Your task to perform on an android device: Go to Yahoo.com Image 0: 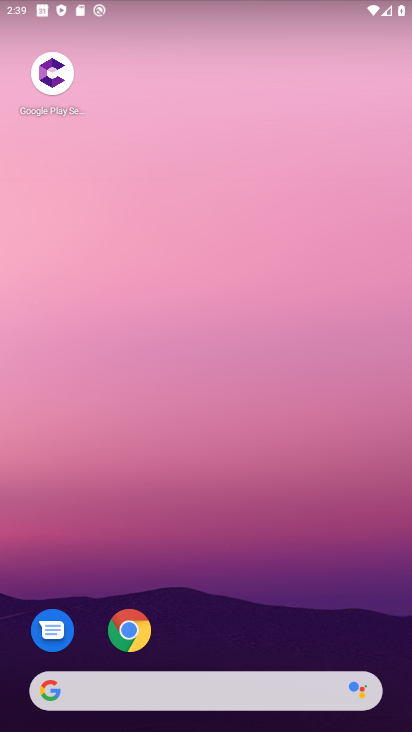
Step 0: click (122, 642)
Your task to perform on an android device: Go to Yahoo.com Image 1: 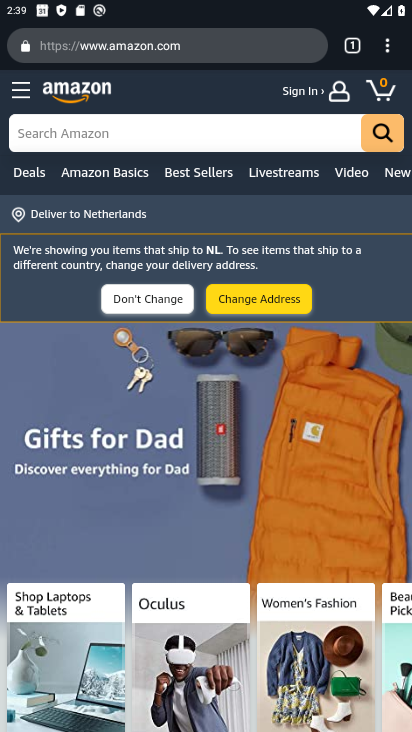
Step 1: click (193, 41)
Your task to perform on an android device: Go to Yahoo.com Image 2: 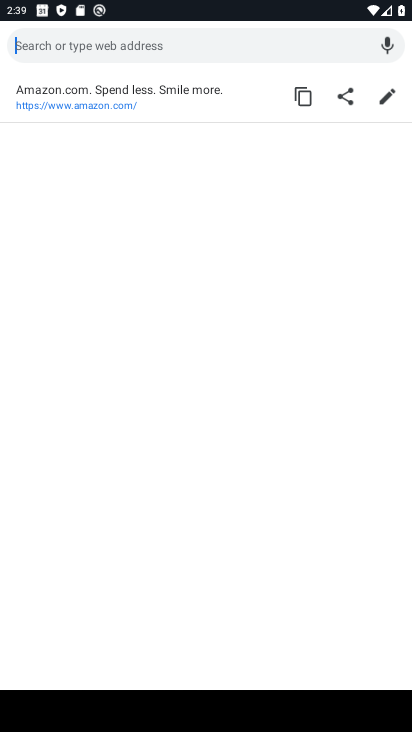
Step 2: type "yahoo.com"
Your task to perform on an android device: Go to Yahoo.com Image 3: 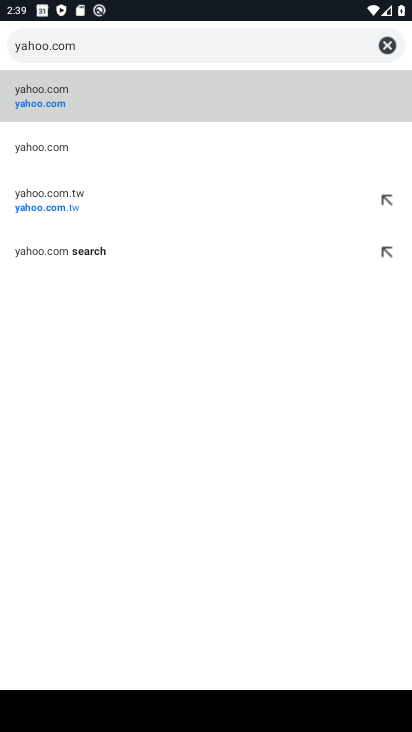
Step 3: click (79, 91)
Your task to perform on an android device: Go to Yahoo.com Image 4: 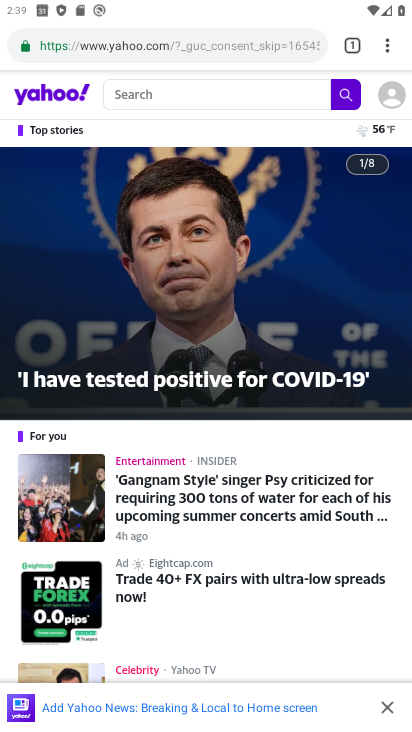
Step 4: task complete